Your task to perform on an android device: check android version Image 0: 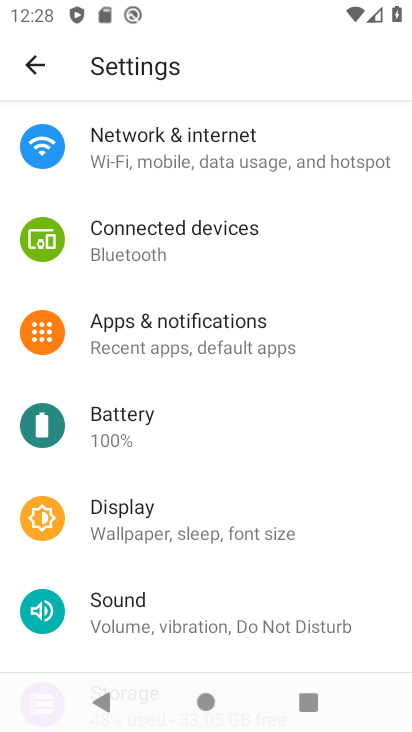
Step 0: drag from (243, 626) to (51, 33)
Your task to perform on an android device: check android version Image 1: 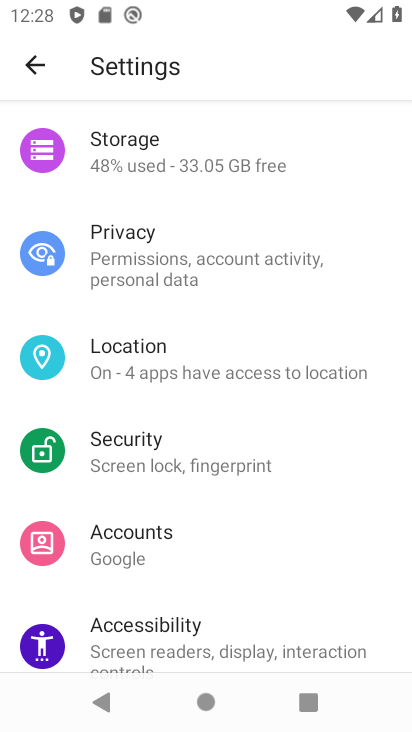
Step 1: drag from (235, 627) to (160, 219)
Your task to perform on an android device: check android version Image 2: 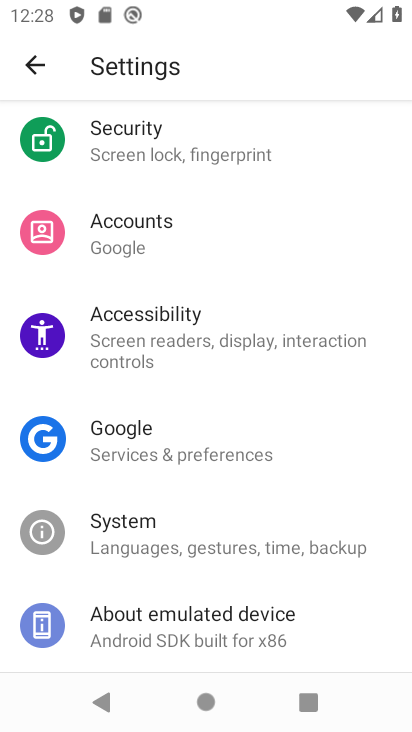
Step 2: click (203, 630)
Your task to perform on an android device: check android version Image 3: 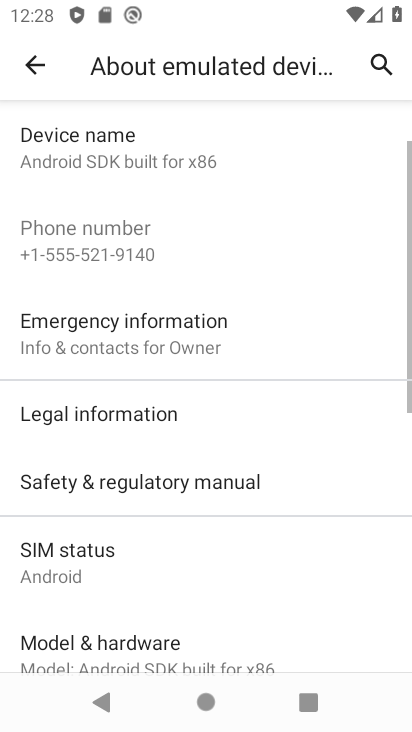
Step 3: drag from (203, 630) to (84, 252)
Your task to perform on an android device: check android version Image 4: 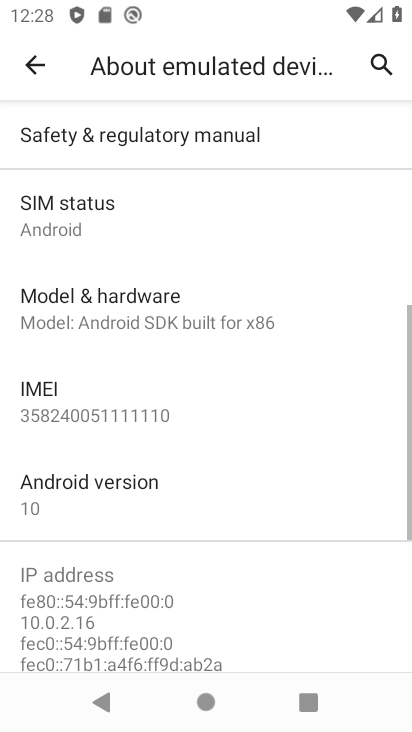
Step 4: click (108, 490)
Your task to perform on an android device: check android version Image 5: 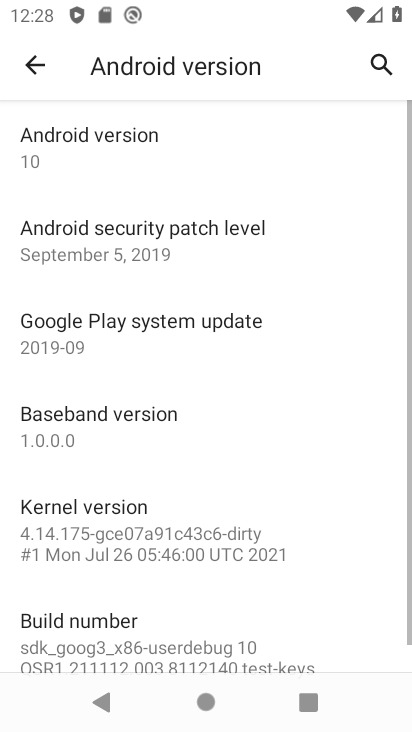
Step 5: click (136, 157)
Your task to perform on an android device: check android version Image 6: 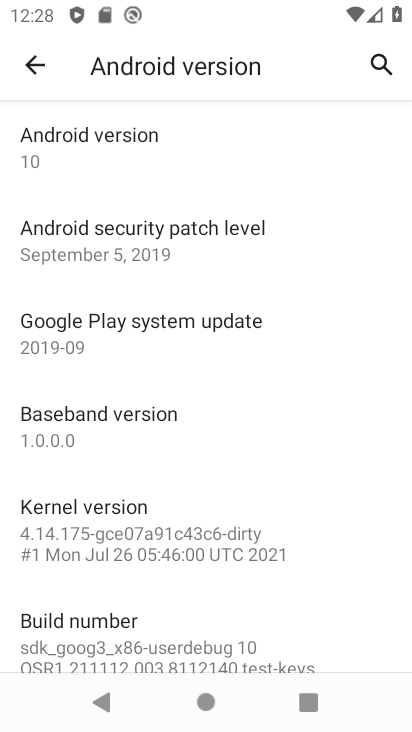
Step 6: task complete